Your task to perform on an android device: Set the phone to "Do not disturb". Image 0: 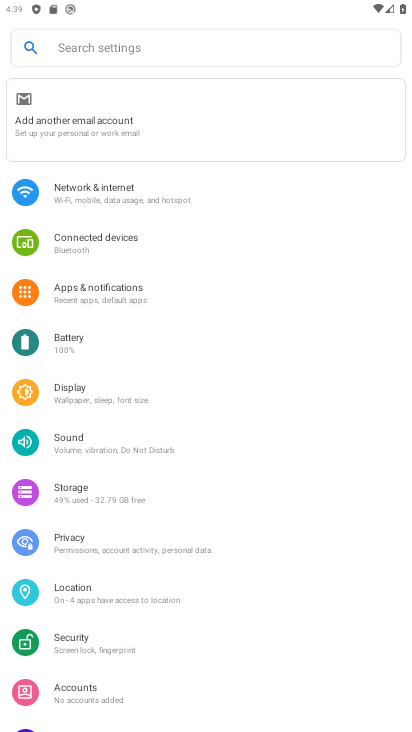
Step 0: press home button
Your task to perform on an android device: Set the phone to "Do not disturb". Image 1: 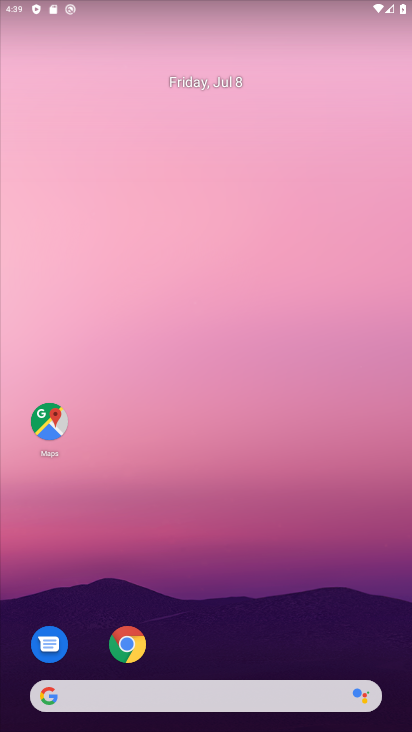
Step 1: drag from (168, 5) to (219, 535)
Your task to perform on an android device: Set the phone to "Do not disturb". Image 2: 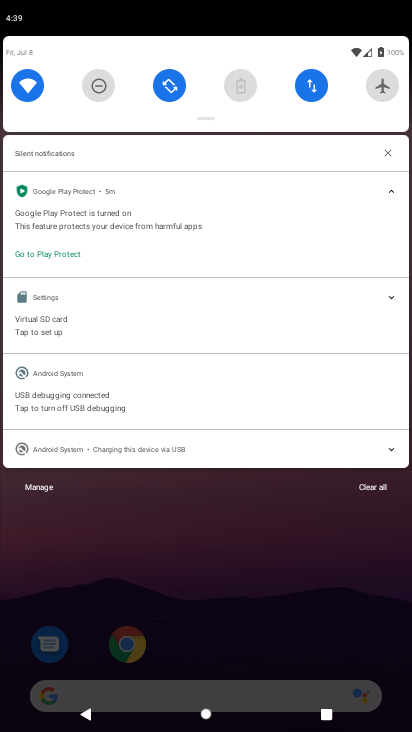
Step 2: click (103, 84)
Your task to perform on an android device: Set the phone to "Do not disturb". Image 3: 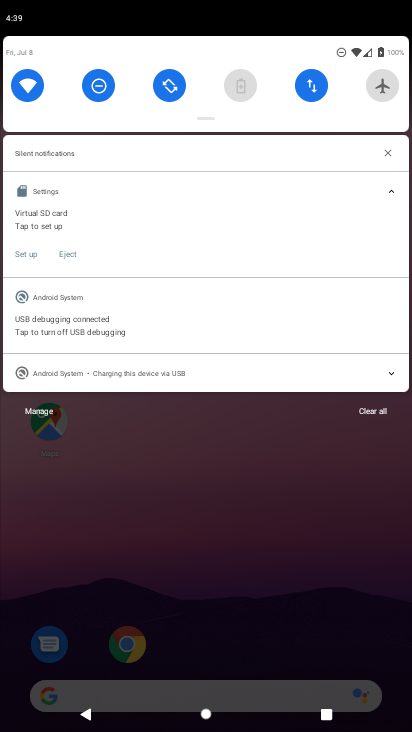
Step 3: task complete